Your task to perform on an android device: check data usage Image 0: 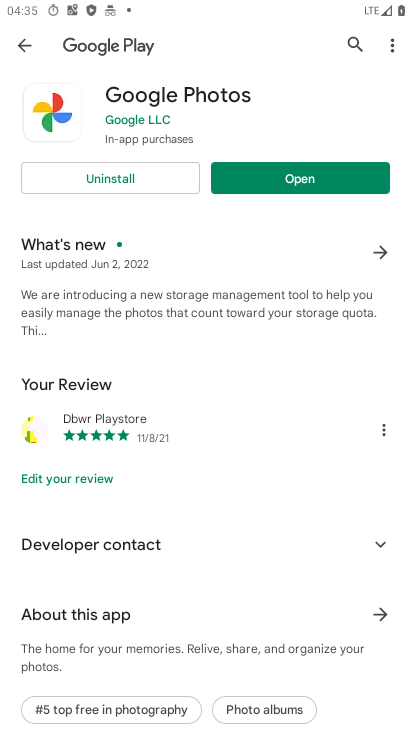
Step 0: press home button
Your task to perform on an android device: check data usage Image 1: 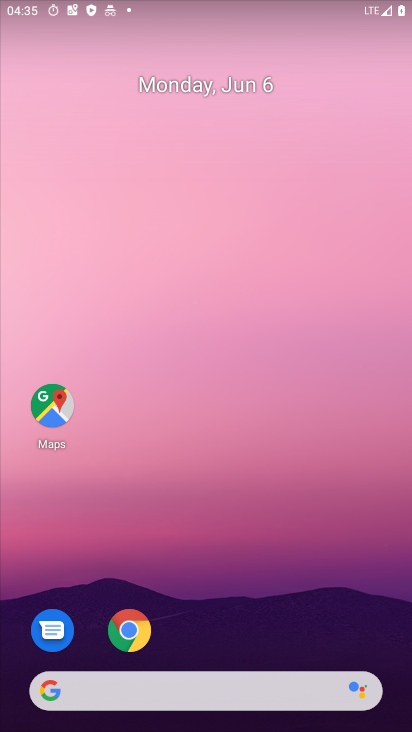
Step 1: drag from (189, 2) to (186, 397)
Your task to perform on an android device: check data usage Image 2: 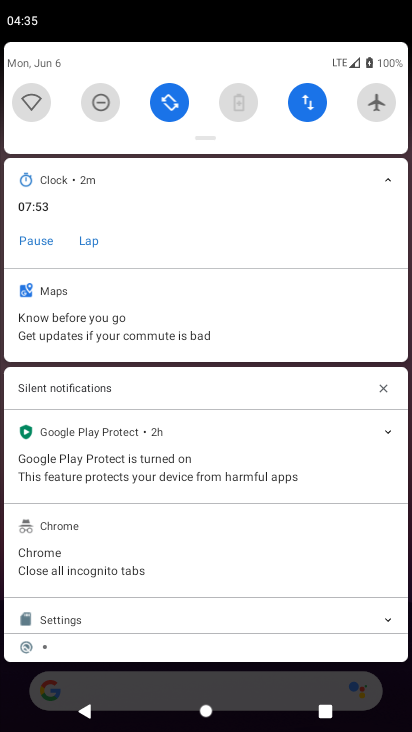
Step 2: click (300, 98)
Your task to perform on an android device: check data usage Image 3: 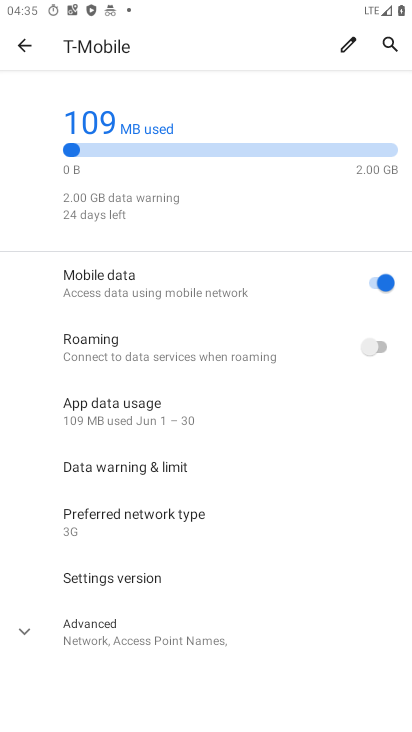
Step 3: task complete